Your task to perform on an android device: Open the stopwatch Image 0: 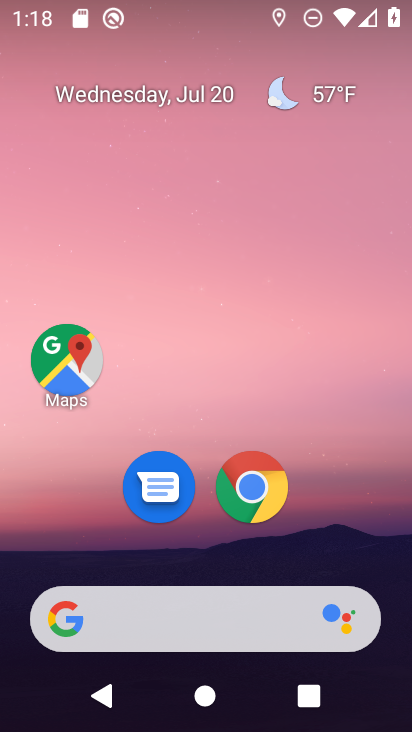
Step 0: drag from (374, 550) to (397, 112)
Your task to perform on an android device: Open the stopwatch Image 1: 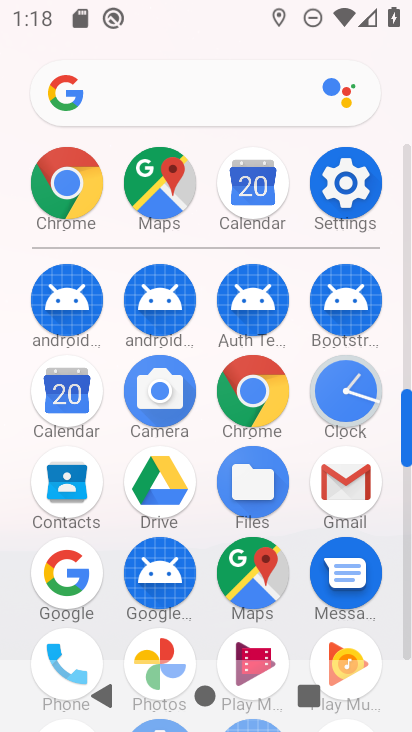
Step 1: click (349, 397)
Your task to perform on an android device: Open the stopwatch Image 2: 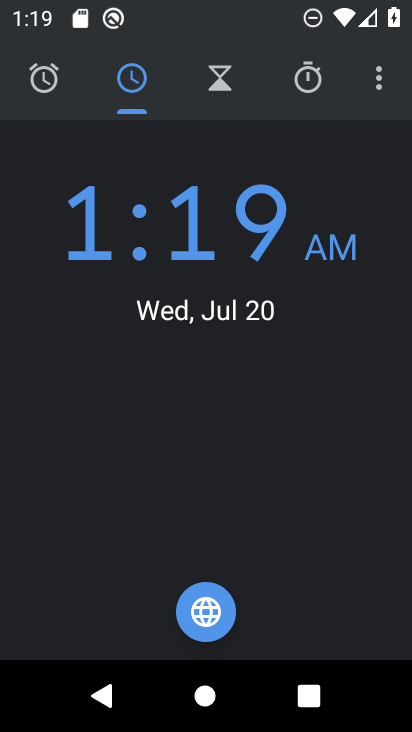
Step 2: click (331, 77)
Your task to perform on an android device: Open the stopwatch Image 3: 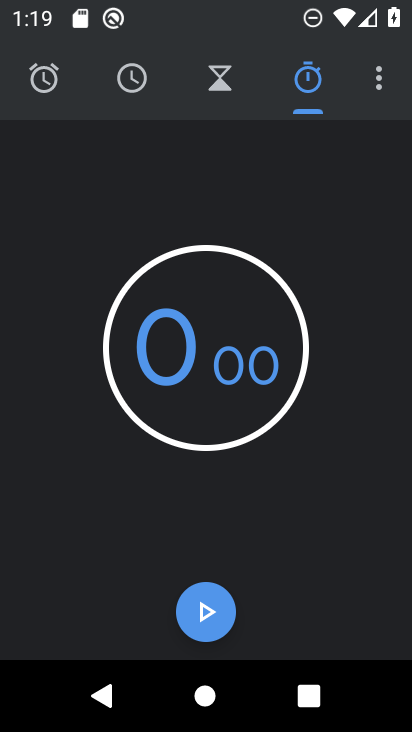
Step 3: task complete